Your task to perform on an android device: toggle priority inbox in the gmail app Image 0: 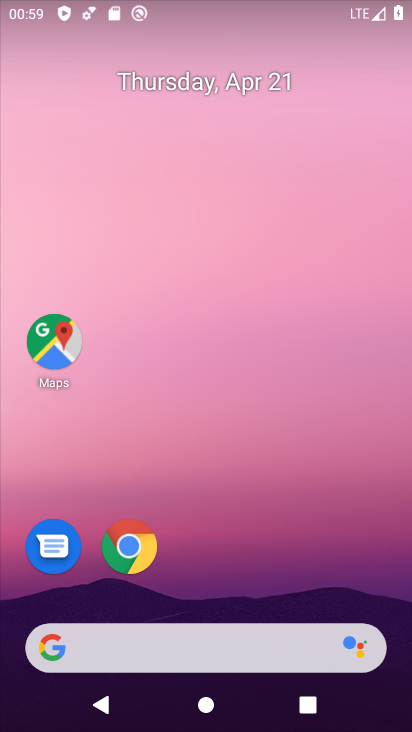
Step 0: drag from (239, 587) to (242, 167)
Your task to perform on an android device: toggle priority inbox in the gmail app Image 1: 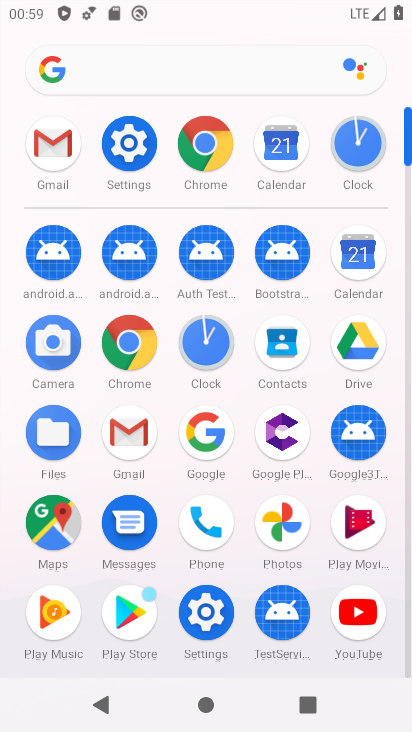
Step 1: click (64, 150)
Your task to perform on an android device: toggle priority inbox in the gmail app Image 2: 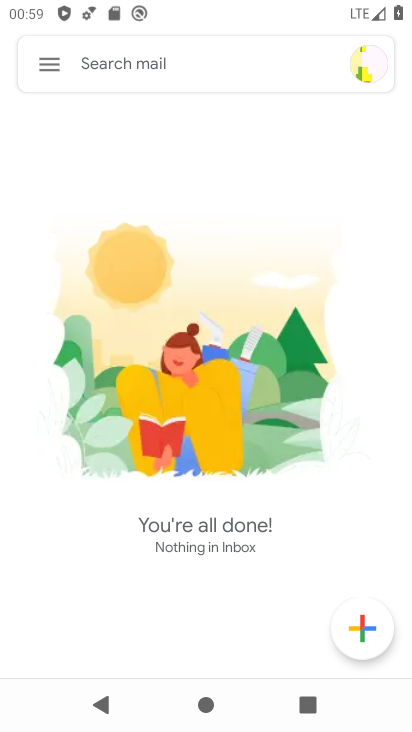
Step 2: click (52, 71)
Your task to perform on an android device: toggle priority inbox in the gmail app Image 3: 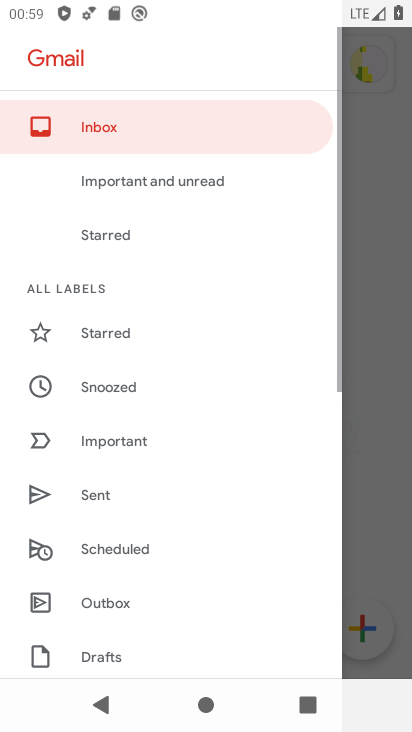
Step 3: drag from (134, 606) to (179, 197)
Your task to perform on an android device: toggle priority inbox in the gmail app Image 4: 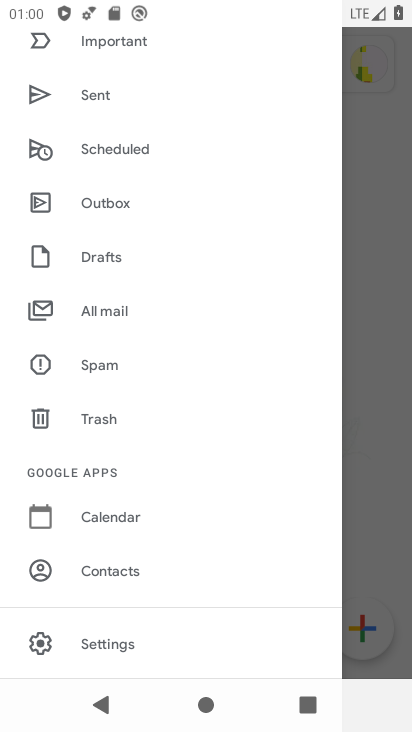
Step 4: click (122, 647)
Your task to perform on an android device: toggle priority inbox in the gmail app Image 5: 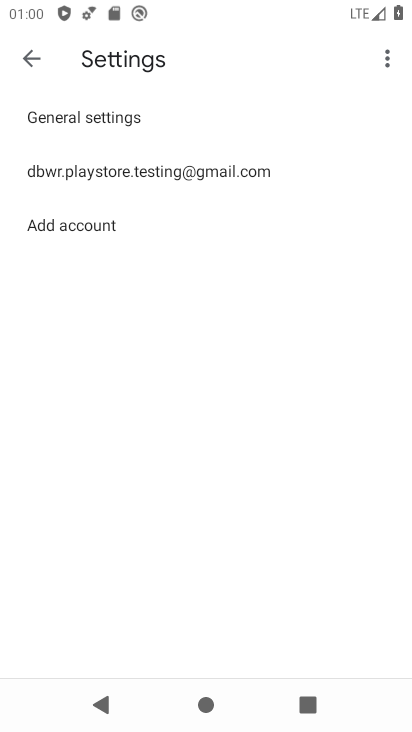
Step 5: click (136, 189)
Your task to perform on an android device: toggle priority inbox in the gmail app Image 6: 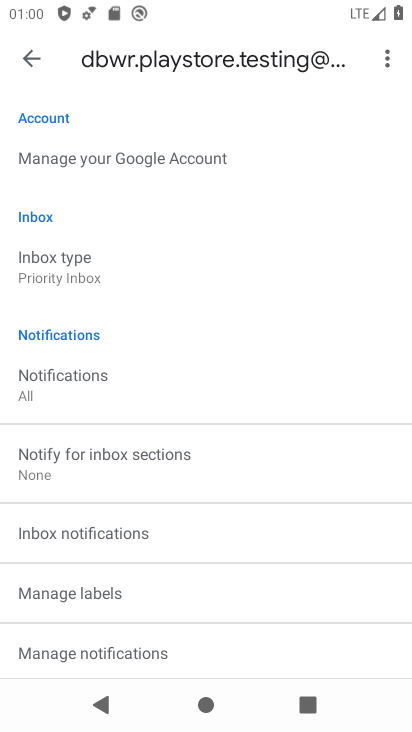
Step 6: task complete